Your task to perform on an android device: add a contact in the contacts app Image 0: 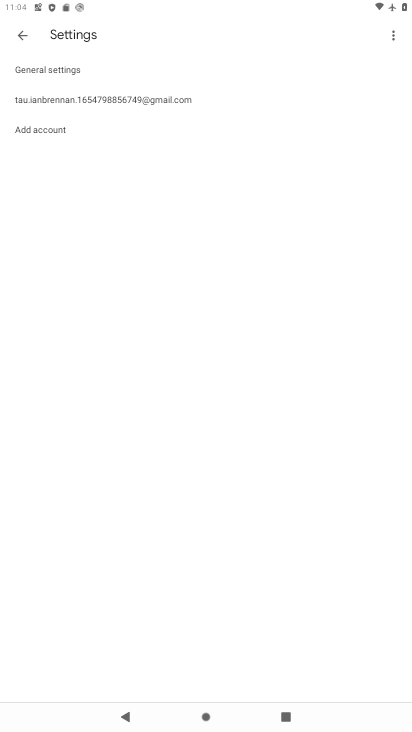
Step 0: press back button
Your task to perform on an android device: add a contact in the contacts app Image 1: 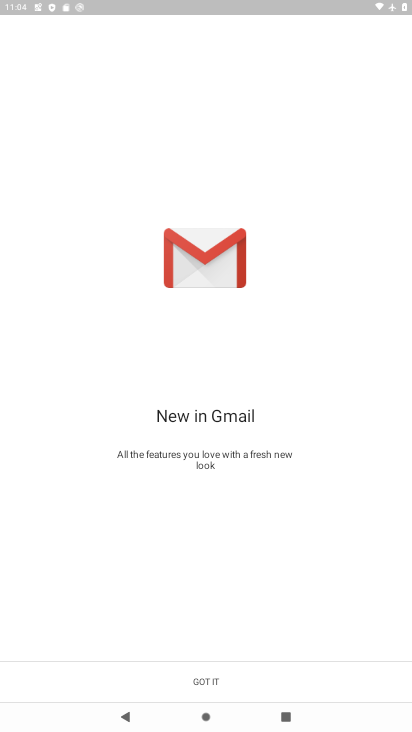
Step 1: click (198, 674)
Your task to perform on an android device: add a contact in the contacts app Image 2: 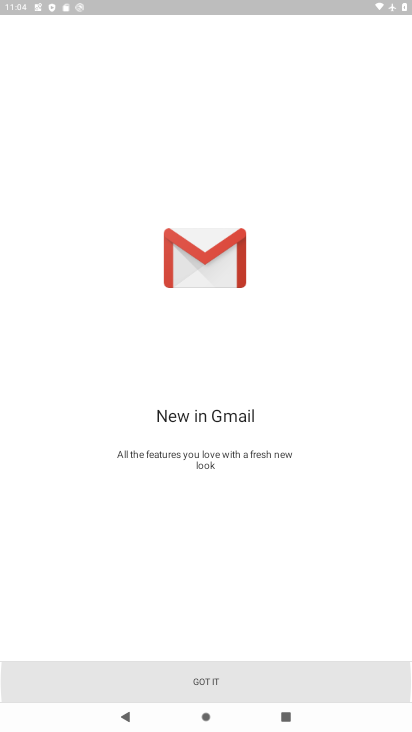
Step 2: click (205, 674)
Your task to perform on an android device: add a contact in the contacts app Image 3: 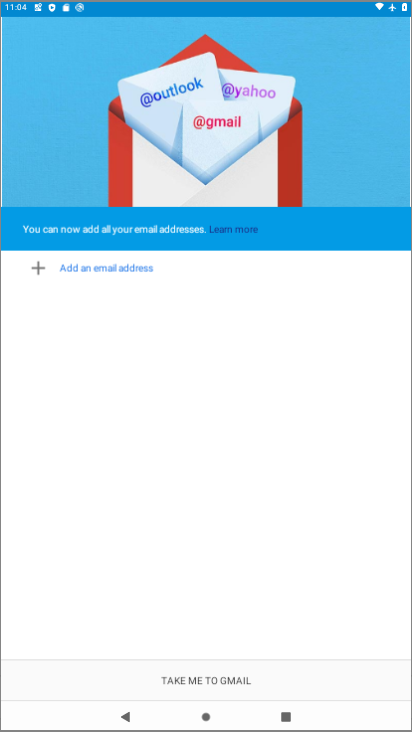
Step 3: click (210, 670)
Your task to perform on an android device: add a contact in the contacts app Image 4: 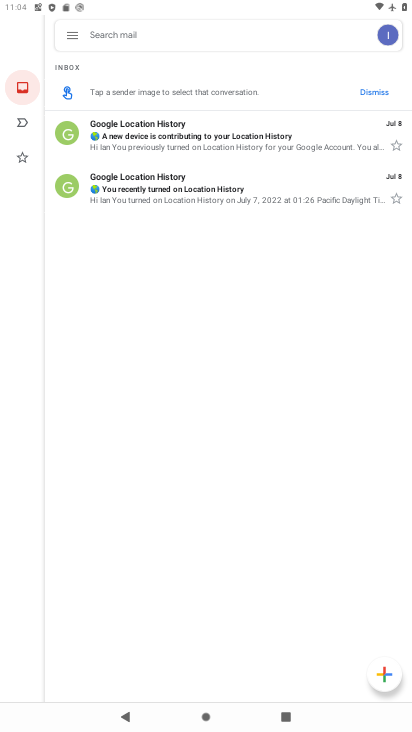
Step 4: press back button
Your task to perform on an android device: add a contact in the contacts app Image 5: 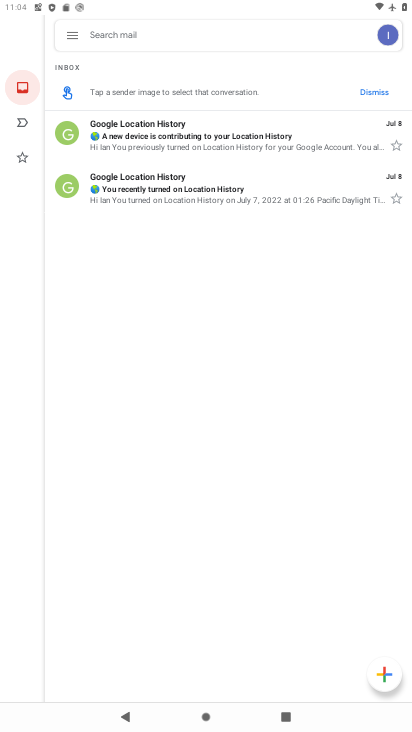
Step 5: press back button
Your task to perform on an android device: add a contact in the contacts app Image 6: 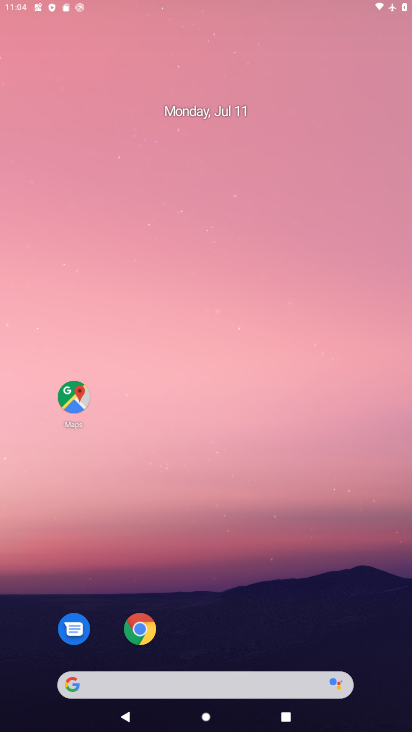
Step 6: press back button
Your task to perform on an android device: add a contact in the contacts app Image 7: 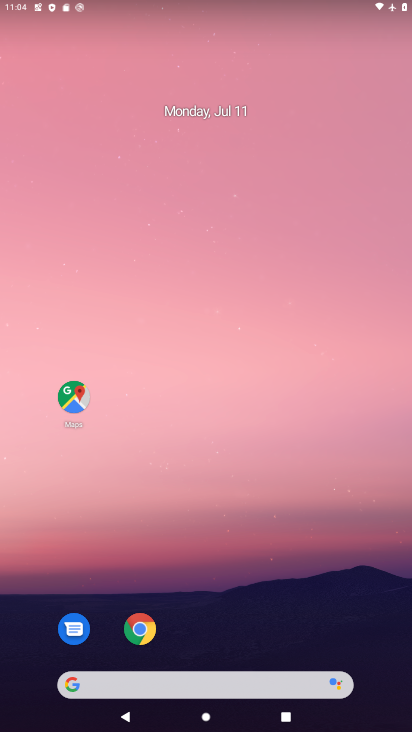
Step 7: drag from (253, 523) to (198, 34)
Your task to perform on an android device: add a contact in the contacts app Image 8: 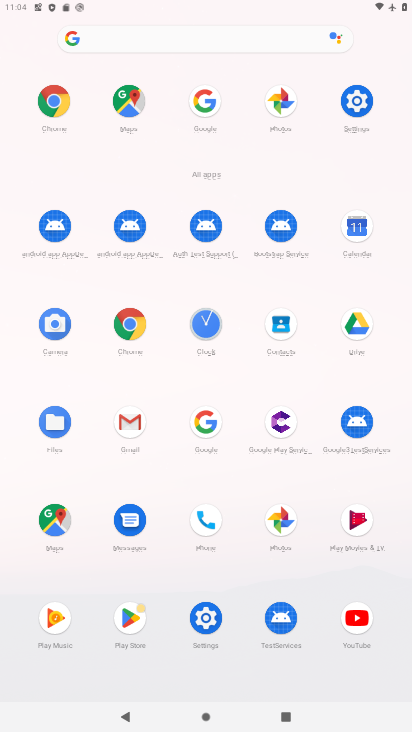
Step 8: click (263, 332)
Your task to perform on an android device: add a contact in the contacts app Image 9: 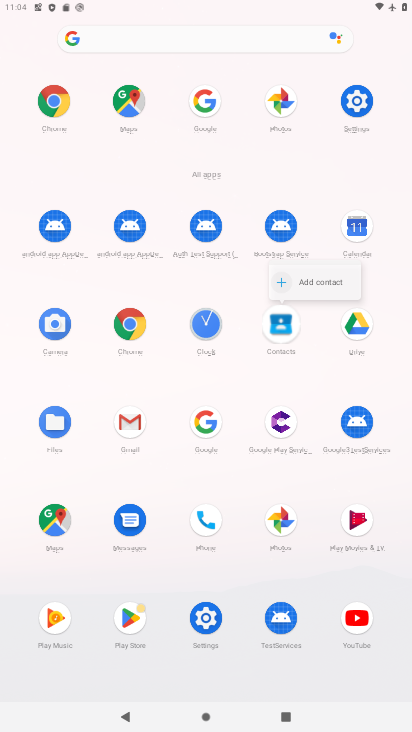
Step 9: click (273, 335)
Your task to perform on an android device: add a contact in the contacts app Image 10: 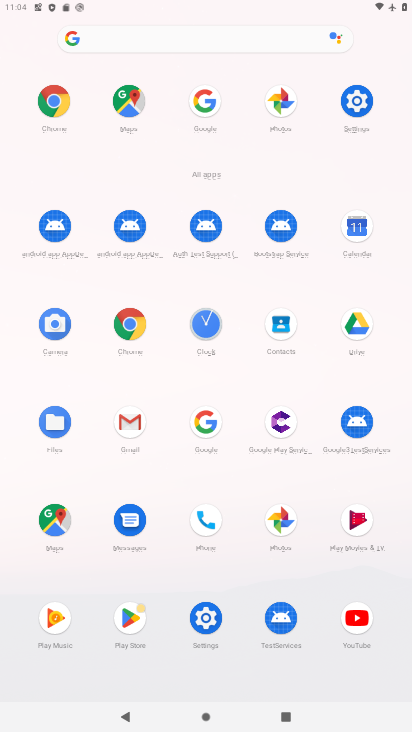
Step 10: click (280, 322)
Your task to perform on an android device: add a contact in the contacts app Image 11: 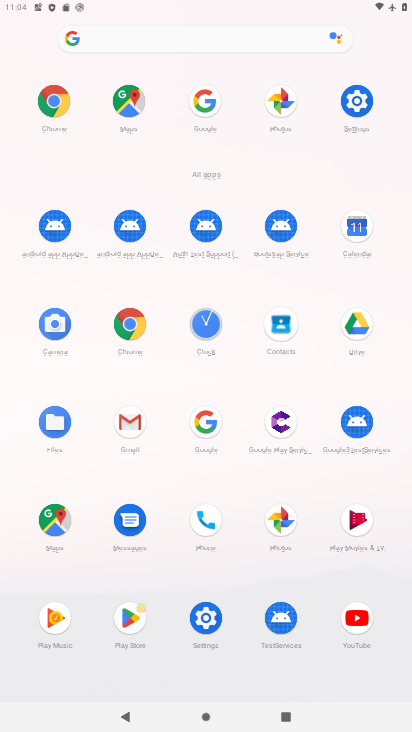
Step 11: click (282, 322)
Your task to perform on an android device: add a contact in the contacts app Image 12: 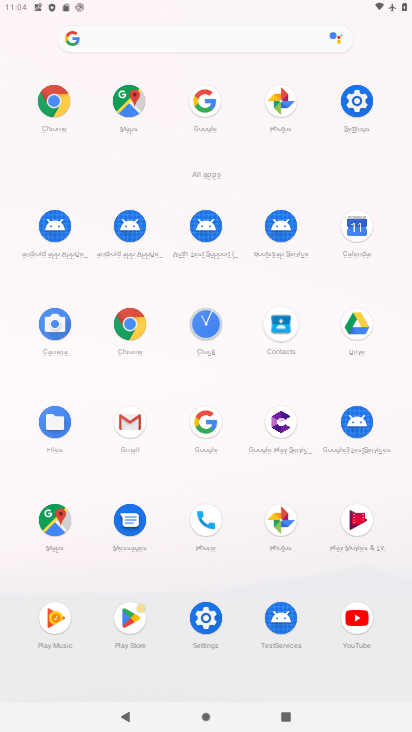
Step 12: click (283, 322)
Your task to perform on an android device: add a contact in the contacts app Image 13: 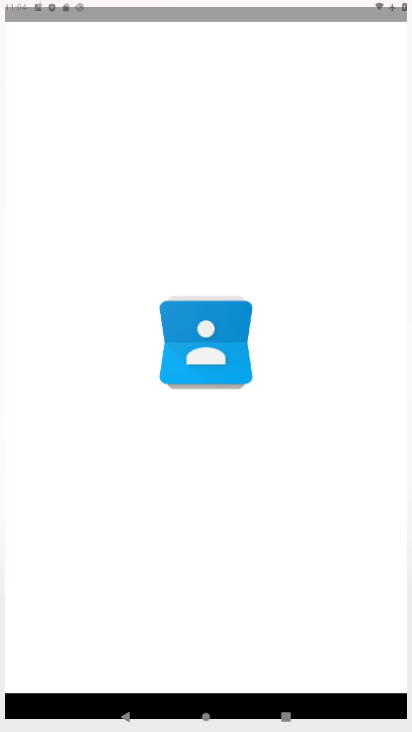
Step 13: click (284, 322)
Your task to perform on an android device: add a contact in the contacts app Image 14: 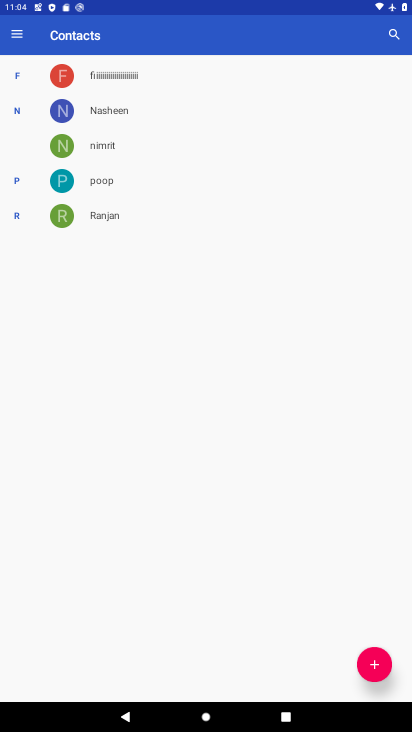
Step 14: click (377, 665)
Your task to perform on an android device: add a contact in the contacts app Image 15: 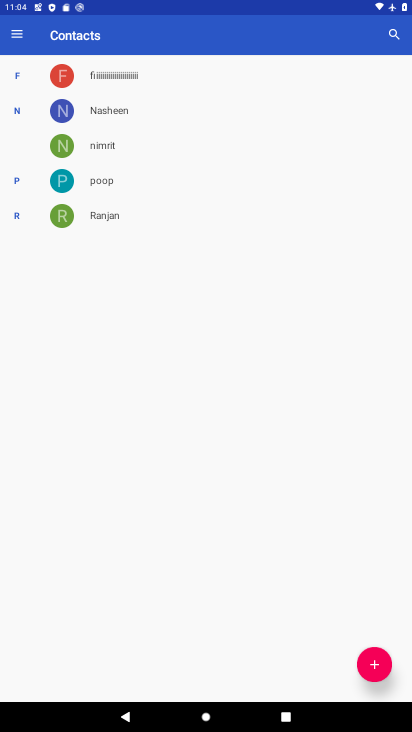
Step 15: click (376, 664)
Your task to perform on an android device: add a contact in the contacts app Image 16: 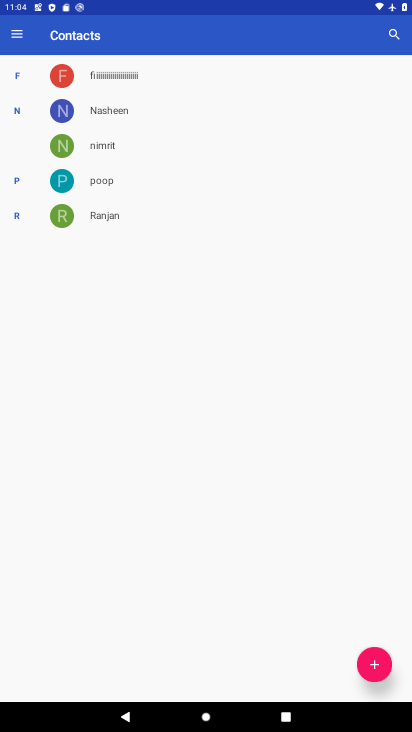
Step 16: click (380, 644)
Your task to perform on an android device: add a contact in the contacts app Image 17: 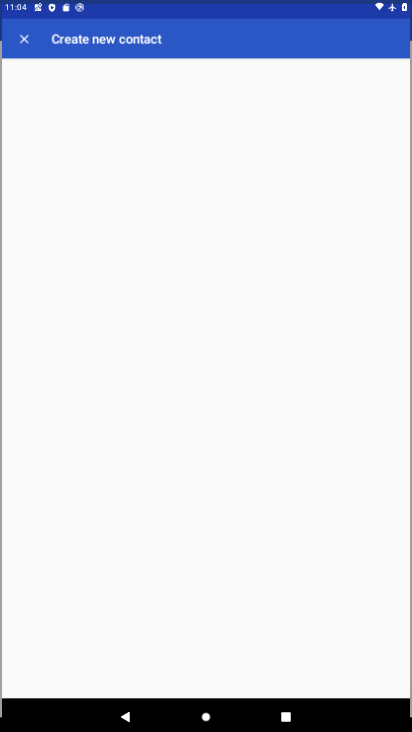
Step 17: click (380, 644)
Your task to perform on an android device: add a contact in the contacts app Image 18: 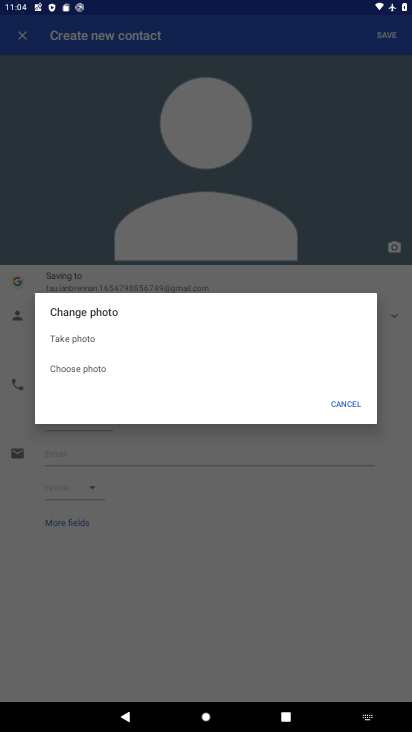
Step 18: click (351, 407)
Your task to perform on an android device: add a contact in the contacts app Image 19: 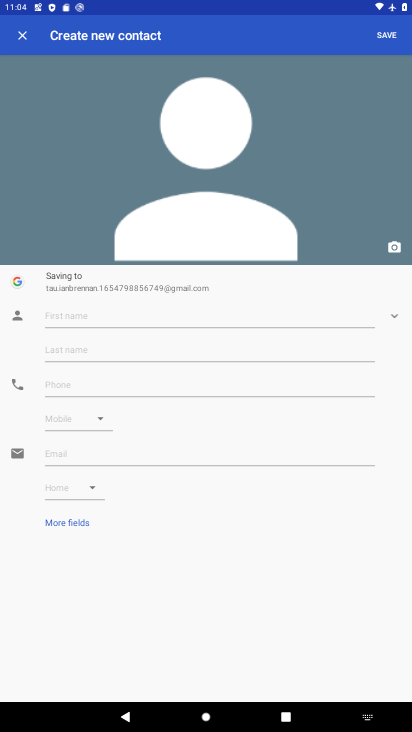
Step 19: click (59, 318)
Your task to perform on an android device: add a contact in the contacts app Image 20: 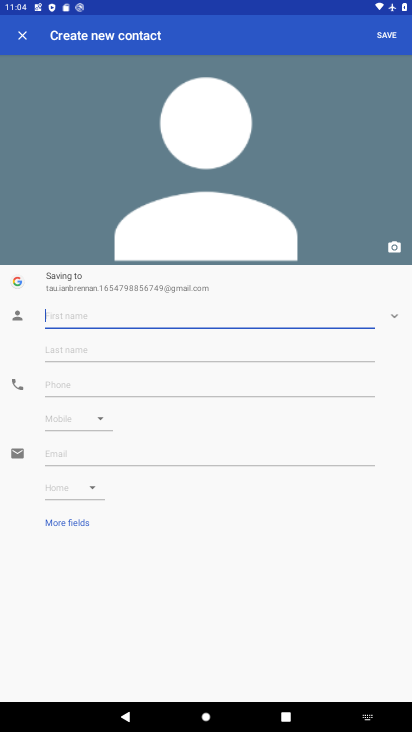
Step 20: click (58, 317)
Your task to perform on an android device: add a contact in the contacts app Image 21: 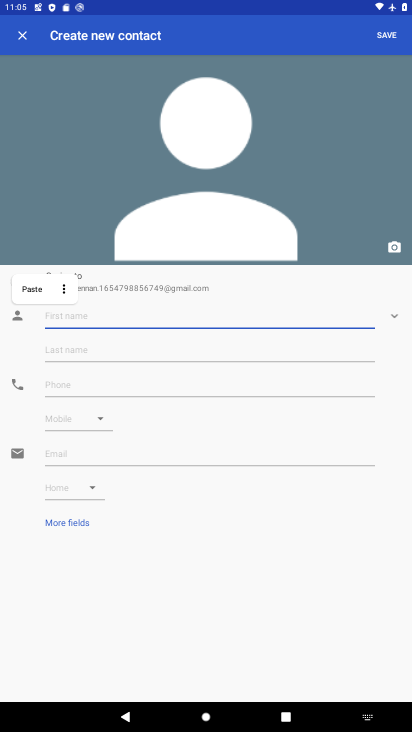
Step 21: type "jvhuhbhjujbhud"
Your task to perform on an android device: add a contact in the contacts app Image 22: 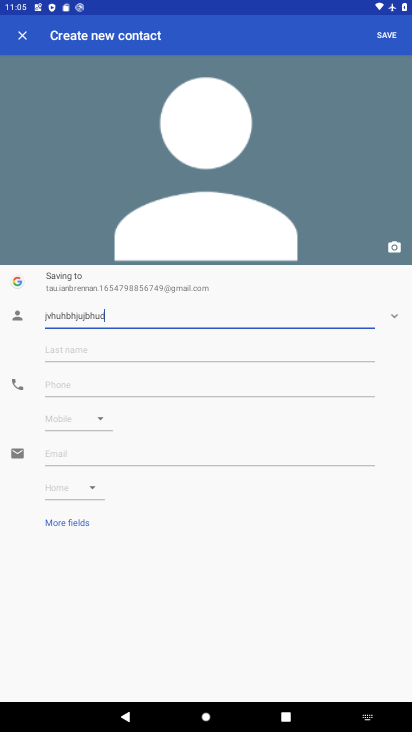
Step 22: click (68, 381)
Your task to perform on an android device: add a contact in the contacts app Image 23: 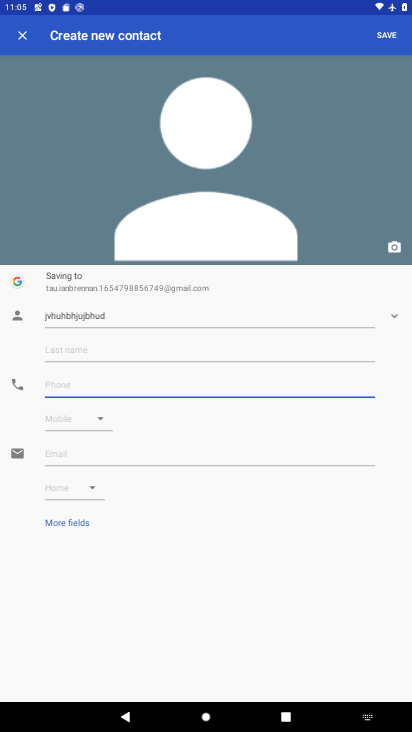
Step 23: type "76876747822"
Your task to perform on an android device: add a contact in the contacts app Image 24: 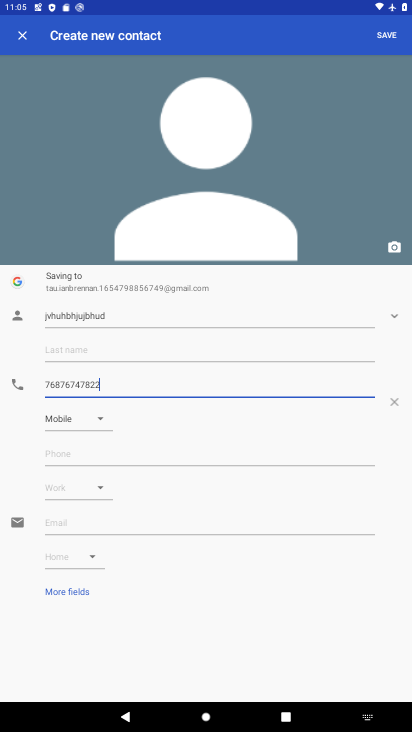
Step 24: click (388, 33)
Your task to perform on an android device: add a contact in the contacts app Image 25: 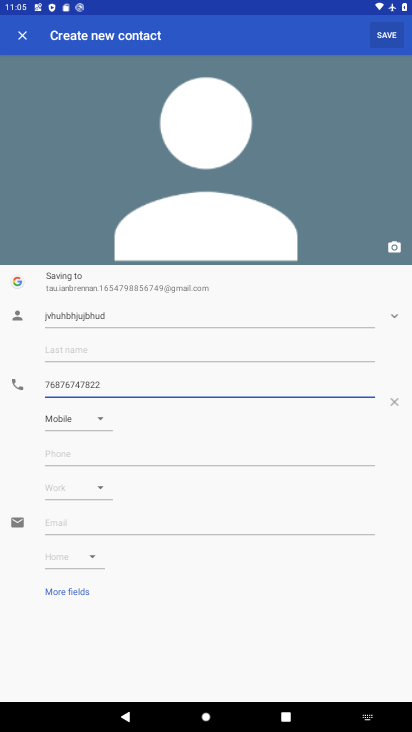
Step 25: click (389, 34)
Your task to perform on an android device: add a contact in the contacts app Image 26: 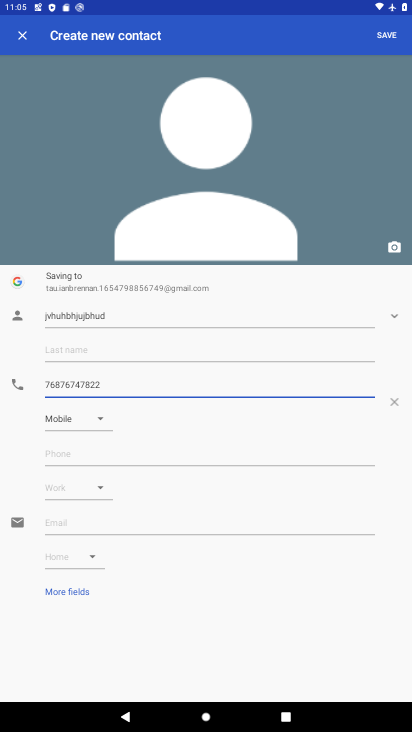
Step 26: click (391, 39)
Your task to perform on an android device: add a contact in the contacts app Image 27: 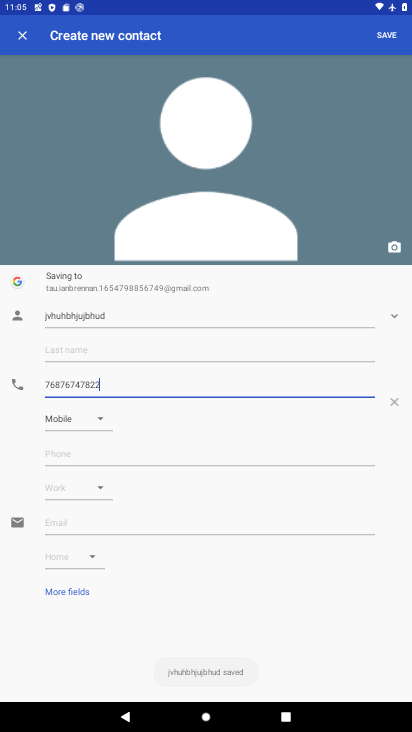
Step 27: click (391, 40)
Your task to perform on an android device: add a contact in the contacts app Image 28: 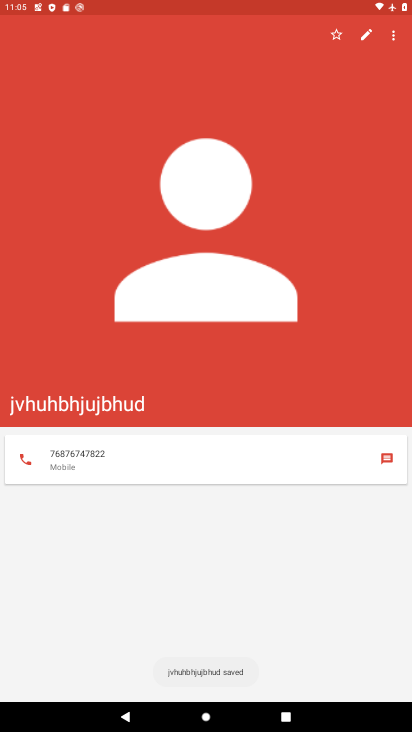
Step 28: task complete